Your task to perform on an android device: change the clock display to digital Image 0: 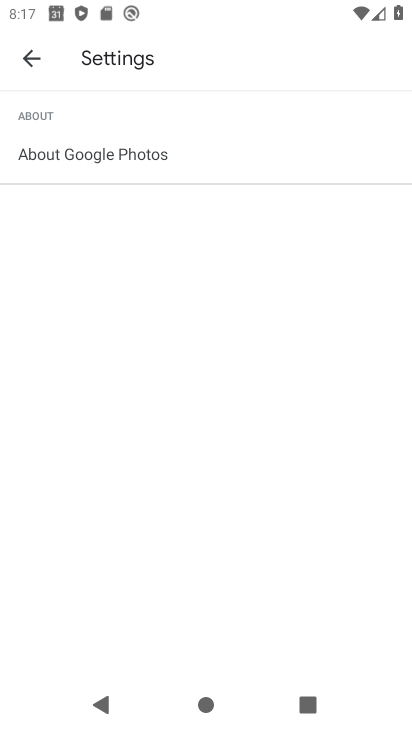
Step 0: drag from (23, 654) to (259, 229)
Your task to perform on an android device: change the clock display to digital Image 1: 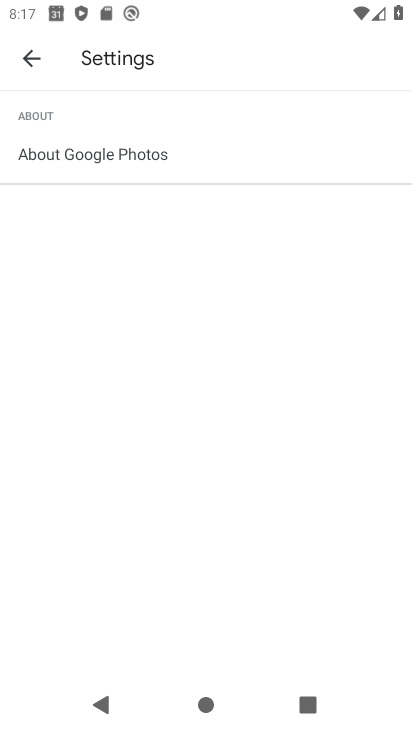
Step 1: press home button
Your task to perform on an android device: change the clock display to digital Image 2: 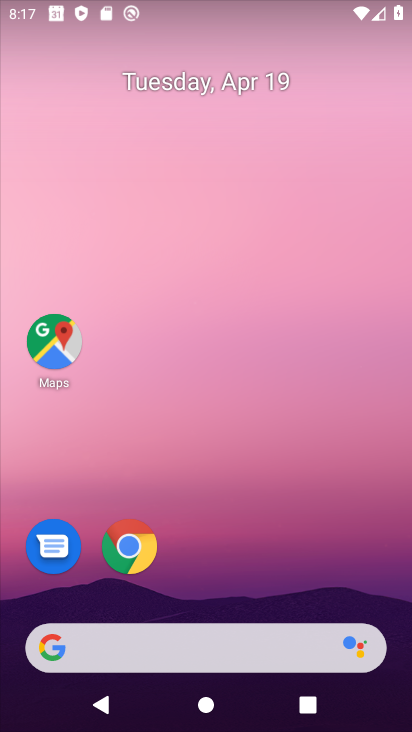
Step 2: drag from (9, 650) to (290, 219)
Your task to perform on an android device: change the clock display to digital Image 3: 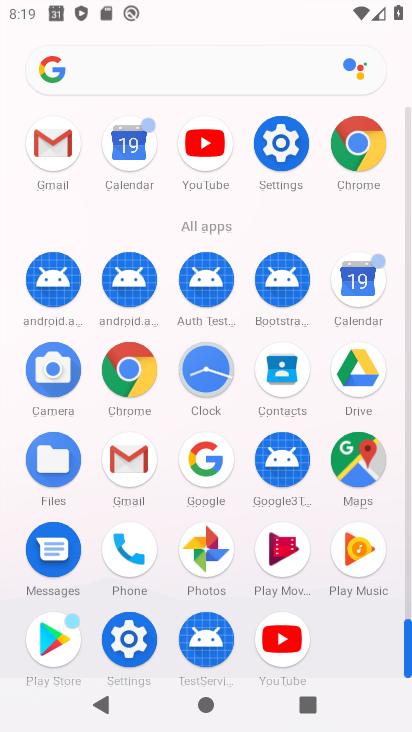
Step 3: click (224, 382)
Your task to perform on an android device: change the clock display to digital Image 4: 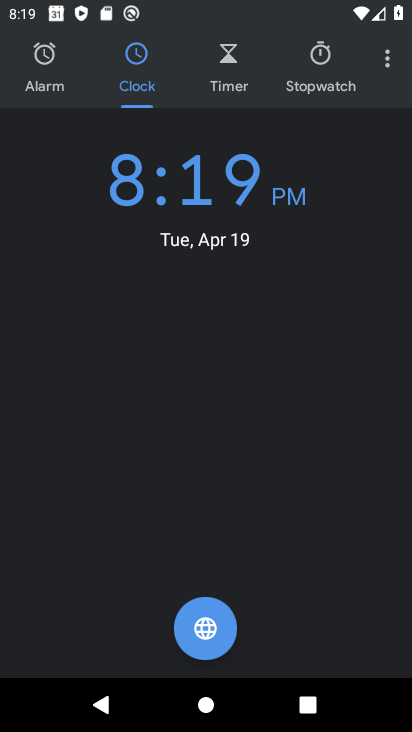
Step 4: click (383, 57)
Your task to perform on an android device: change the clock display to digital Image 5: 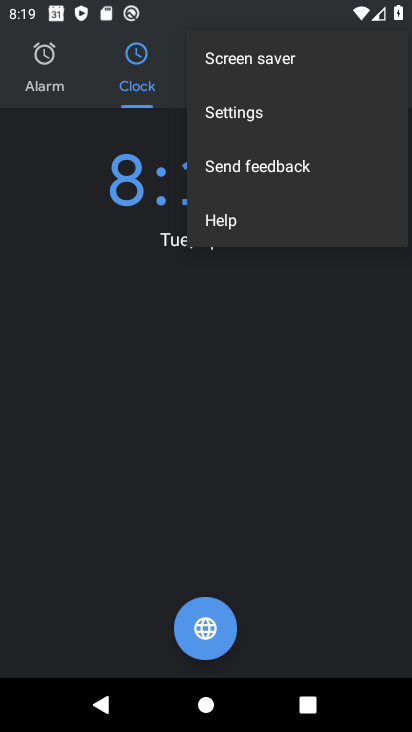
Step 5: click (209, 107)
Your task to perform on an android device: change the clock display to digital Image 6: 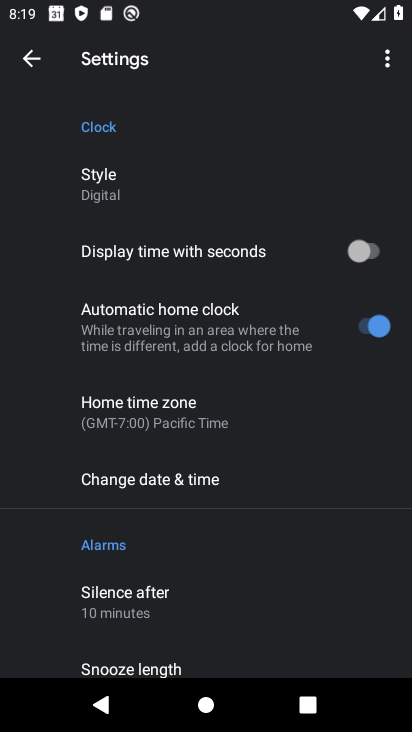
Step 6: click (166, 173)
Your task to perform on an android device: change the clock display to digital Image 7: 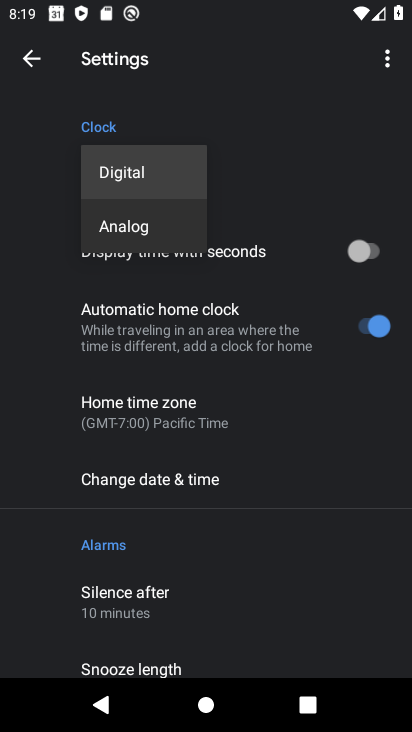
Step 7: click (166, 173)
Your task to perform on an android device: change the clock display to digital Image 8: 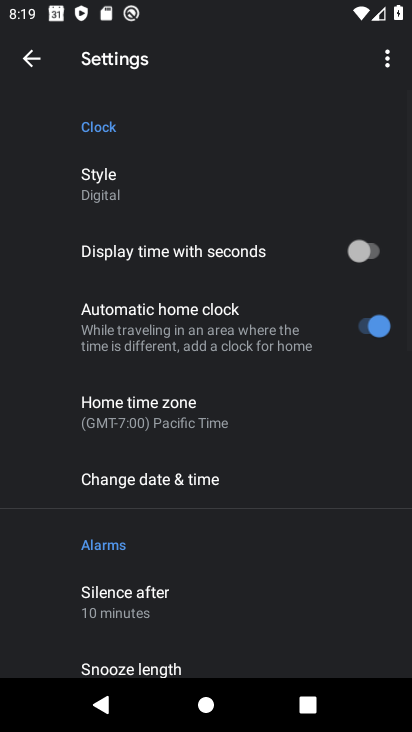
Step 8: task complete